Your task to perform on an android device: turn pop-ups on in chrome Image 0: 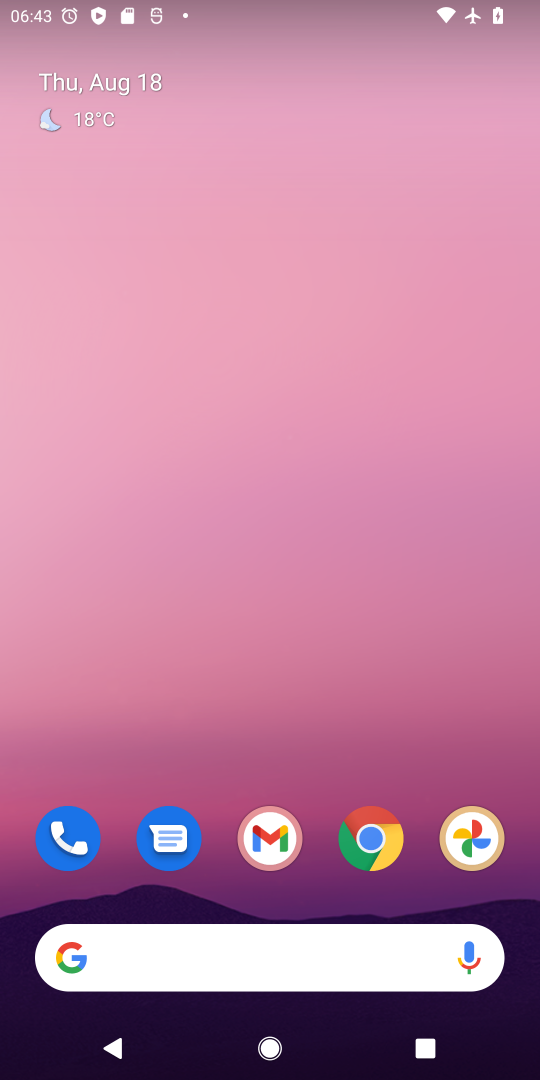
Step 0: press home button
Your task to perform on an android device: turn pop-ups on in chrome Image 1: 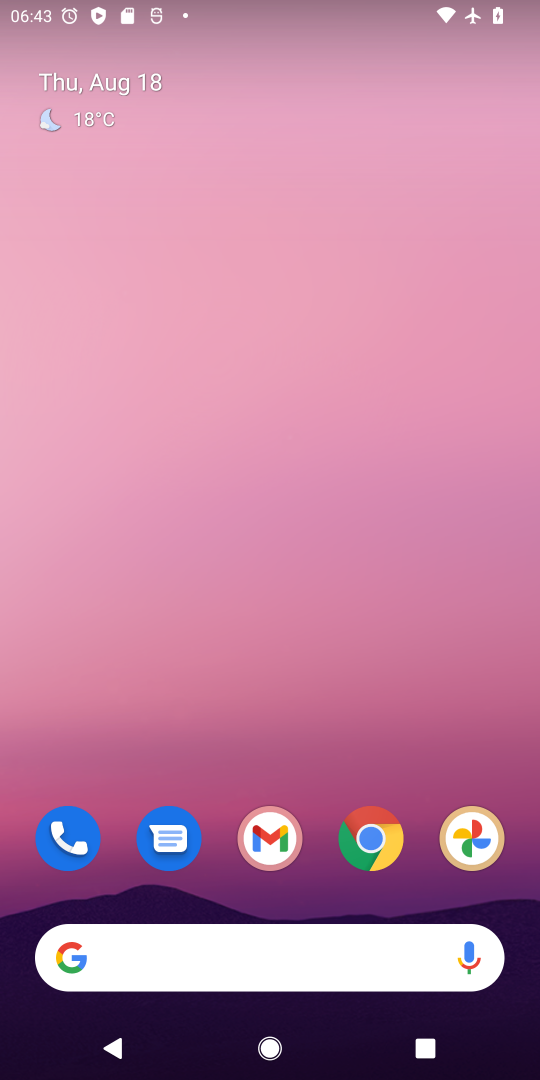
Step 1: click (375, 850)
Your task to perform on an android device: turn pop-ups on in chrome Image 2: 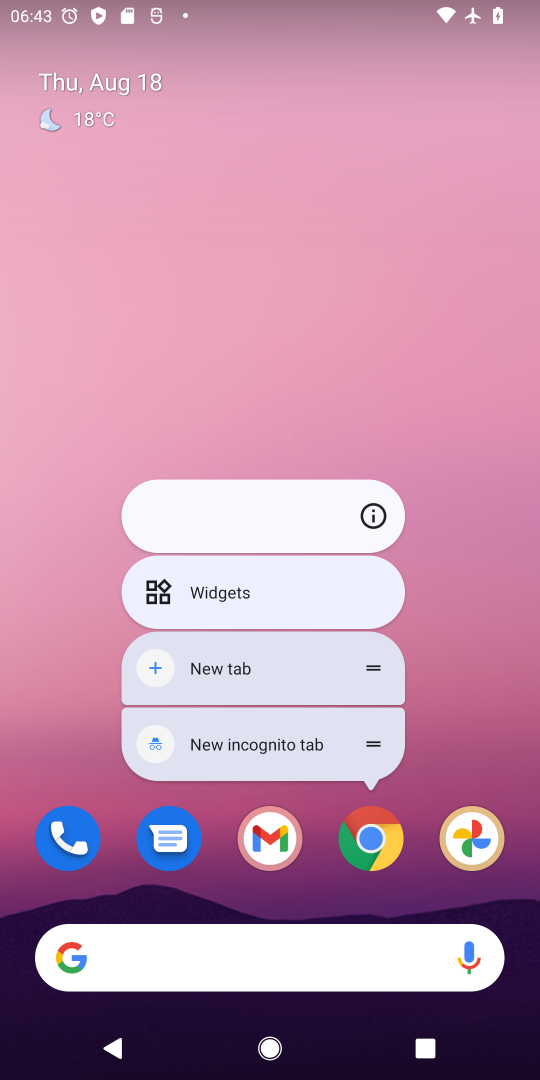
Step 2: click (370, 848)
Your task to perform on an android device: turn pop-ups on in chrome Image 3: 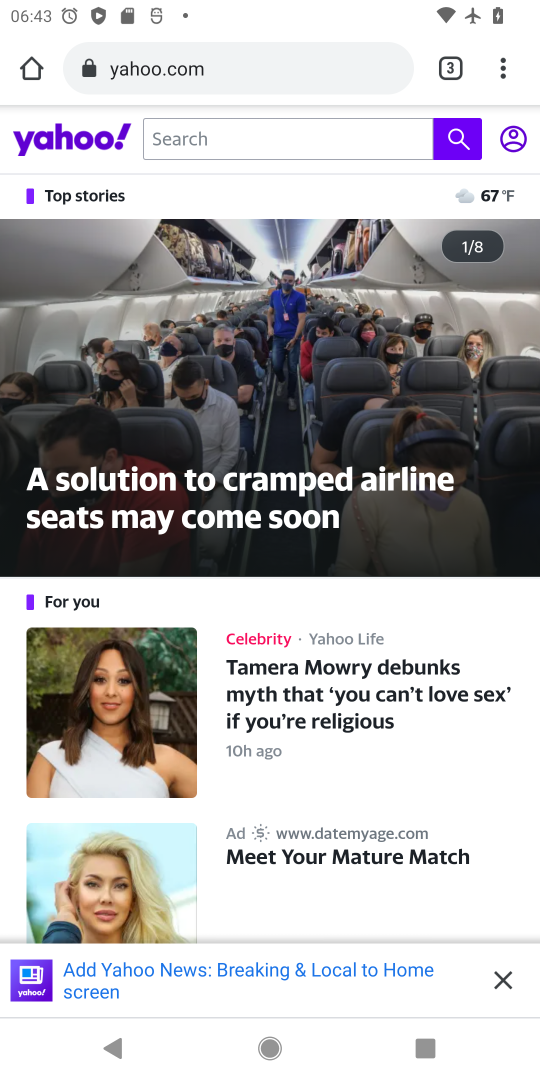
Step 3: drag from (509, 73) to (301, 914)
Your task to perform on an android device: turn pop-ups on in chrome Image 4: 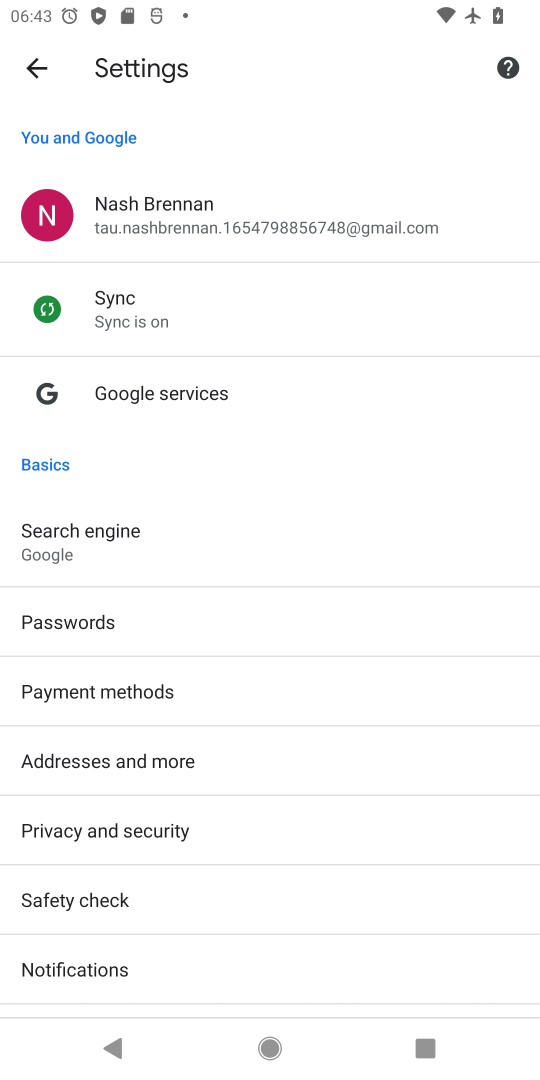
Step 4: drag from (213, 934) to (383, 455)
Your task to perform on an android device: turn pop-ups on in chrome Image 5: 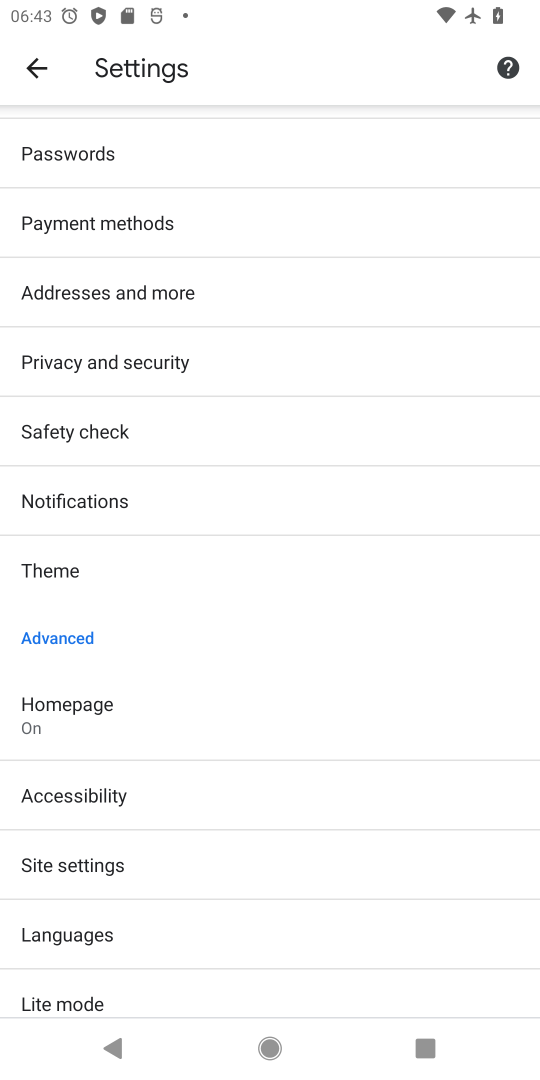
Step 5: click (70, 873)
Your task to perform on an android device: turn pop-ups on in chrome Image 6: 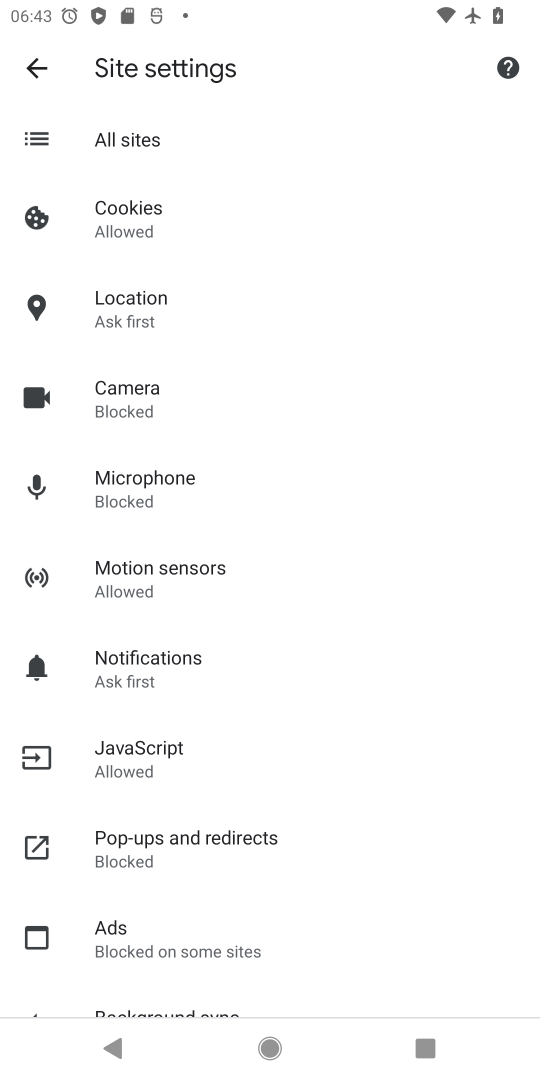
Step 6: click (134, 844)
Your task to perform on an android device: turn pop-ups on in chrome Image 7: 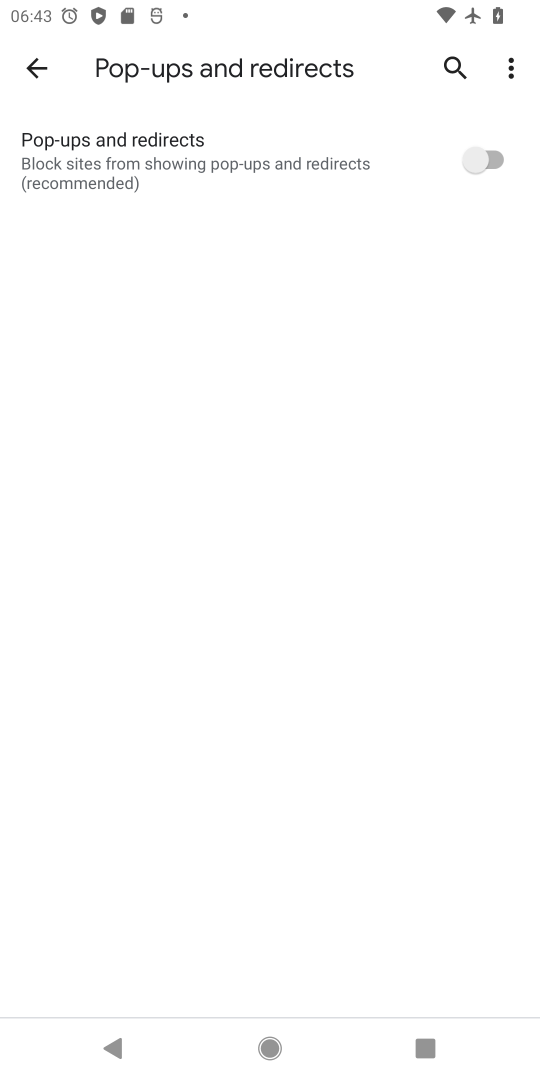
Step 7: click (483, 151)
Your task to perform on an android device: turn pop-ups on in chrome Image 8: 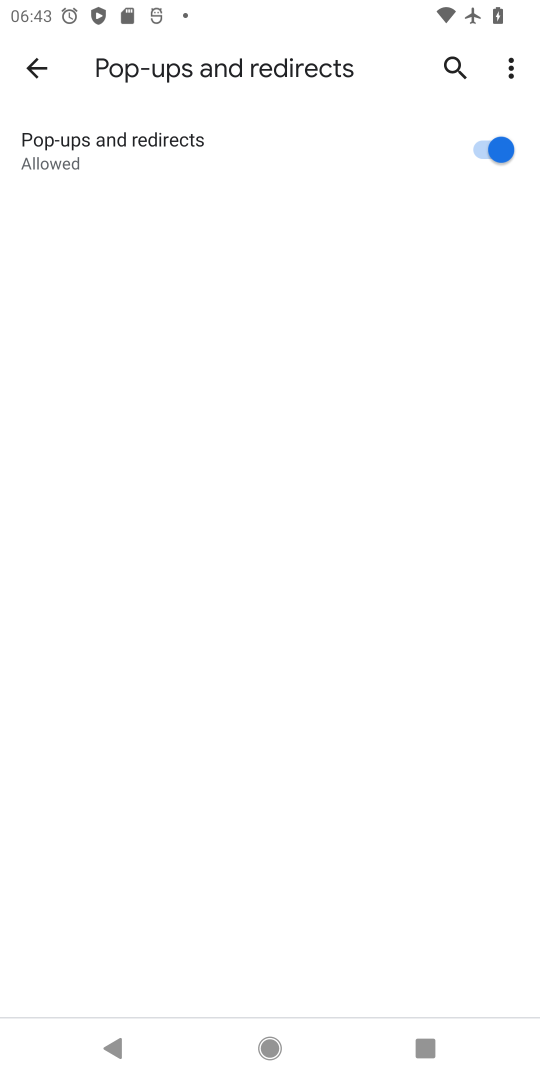
Step 8: task complete